Your task to perform on an android device: Go to Yahoo.com Image 0: 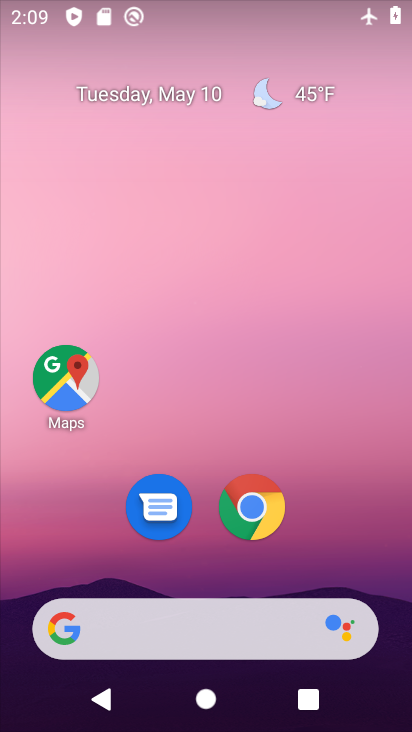
Step 0: click (277, 523)
Your task to perform on an android device: Go to Yahoo.com Image 1: 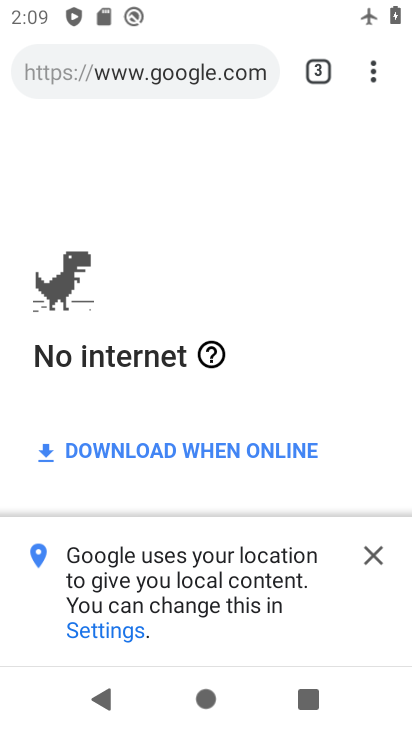
Step 1: click (315, 69)
Your task to perform on an android device: Go to Yahoo.com Image 2: 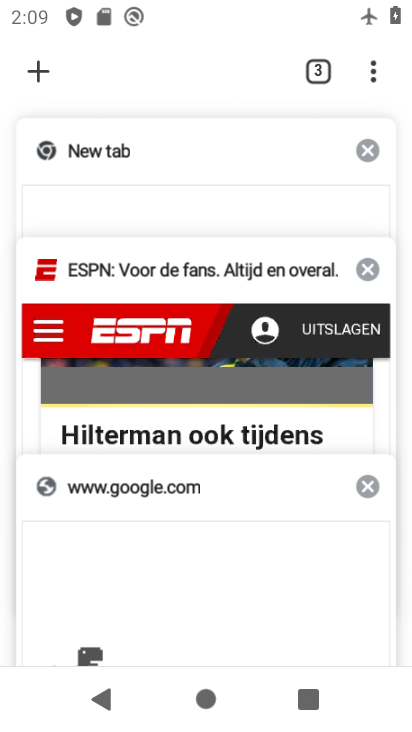
Step 2: click (36, 65)
Your task to perform on an android device: Go to Yahoo.com Image 3: 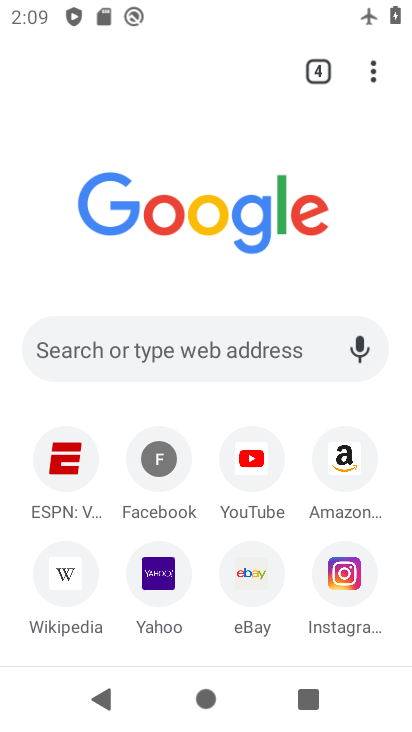
Step 3: click (150, 578)
Your task to perform on an android device: Go to Yahoo.com Image 4: 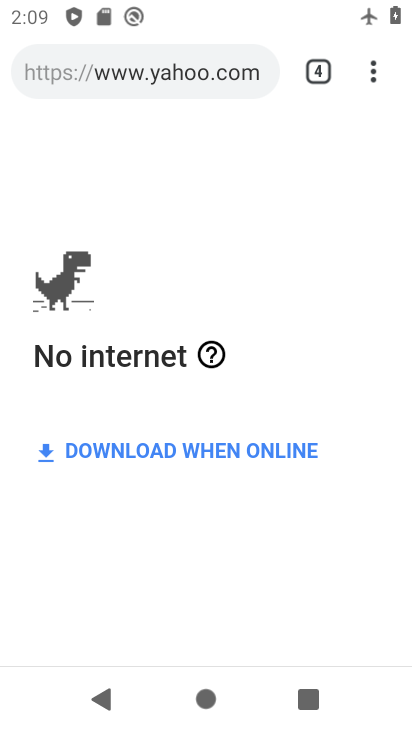
Step 4: task complete